Your task to perform on an android device: change notifications settings Image 0: 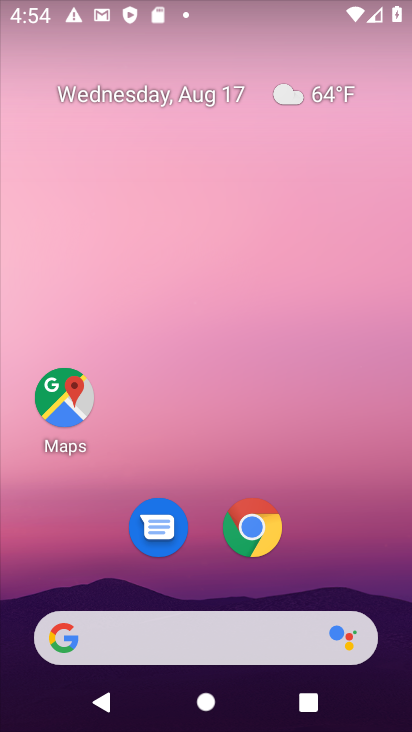
Step 0: drag from (200, 617) to (189, 259)
Your task to perform on an android device: change notifications settings Image 1: 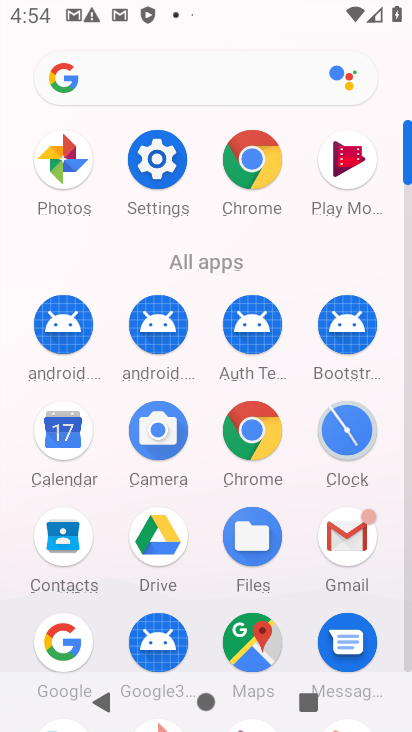
Step 1: click (157, 174)
Your task to perform on an android device: change notifications settings Image 2: 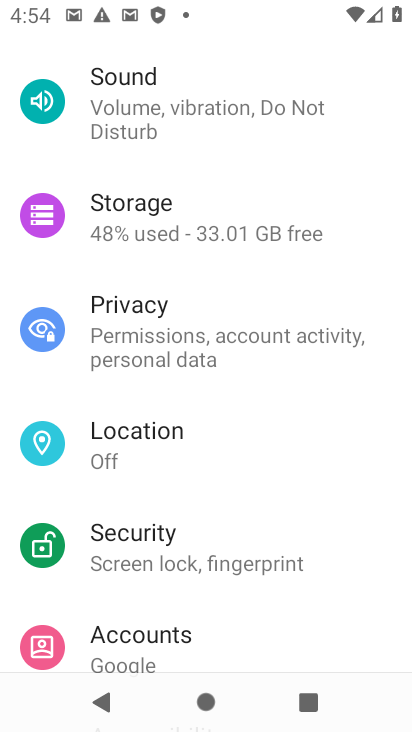
Step 2: drag from (136, 133) to (249, 607)
Your task to perform on an android device: change notifications settings Image 3: 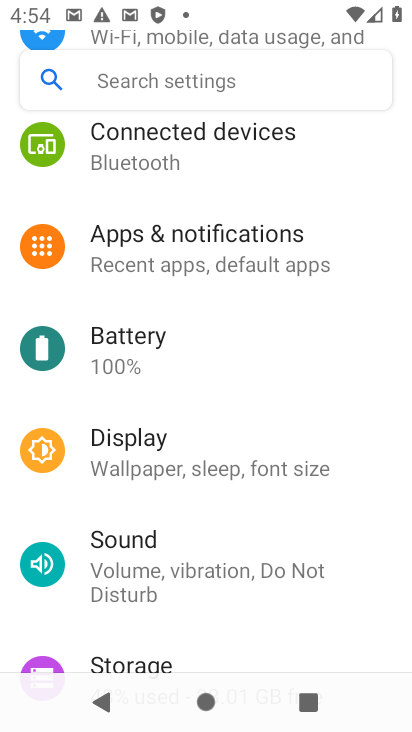
Step 3: click (155, 243)
Your task to perform on an android device: change notifications settings Image 4: 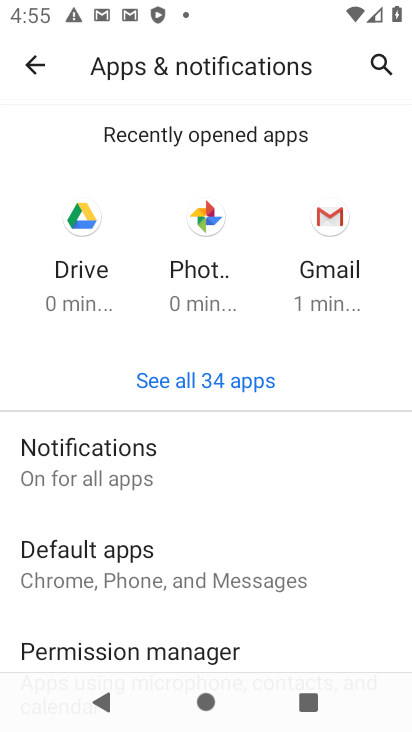
Step 4: drag from (121, 595) to (104, 345)
Your task to perform on an android device: change notifications settings Image 5: 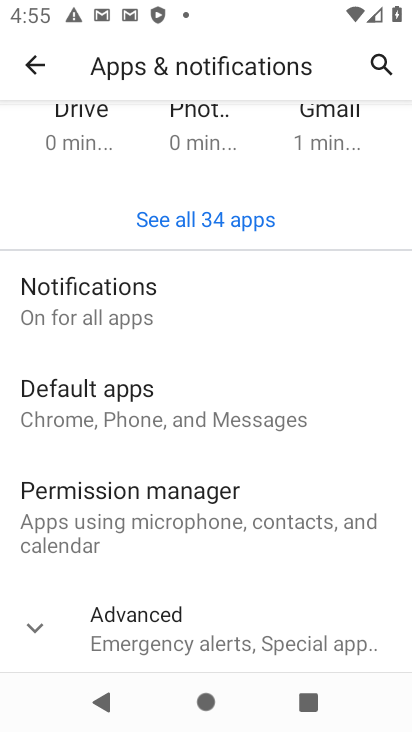
Step 5: click (136, 624)
Your task to perform on an android device: change notifications settings Image 6: 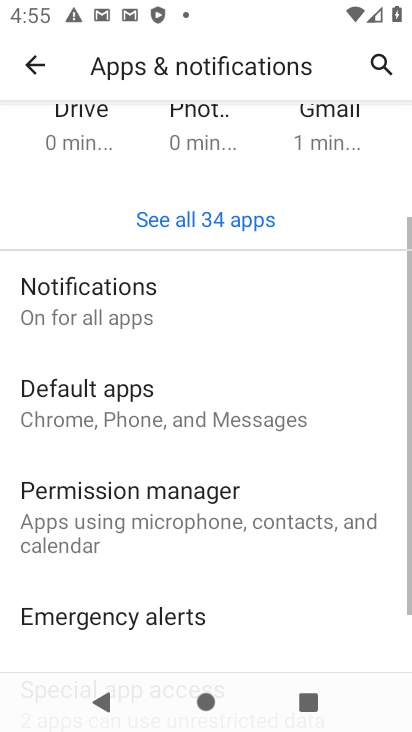
Step 6: task complete